Your task to perform on an android device: turn on data saver in the chrome app Image 0: 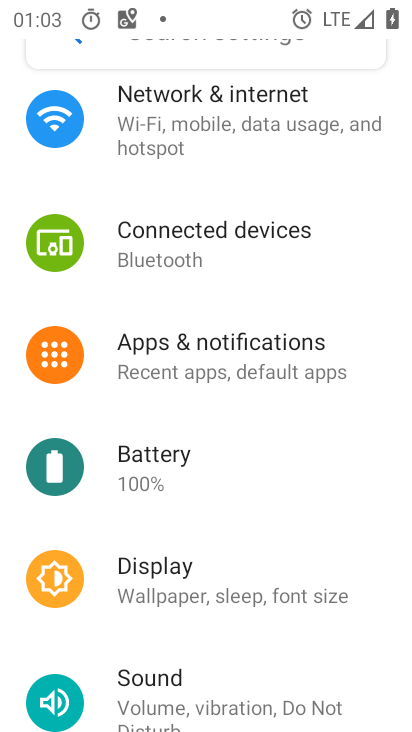
Step 0: press home button
Your task to perform on an android device: turn on data saver in the chrome app Image 1: 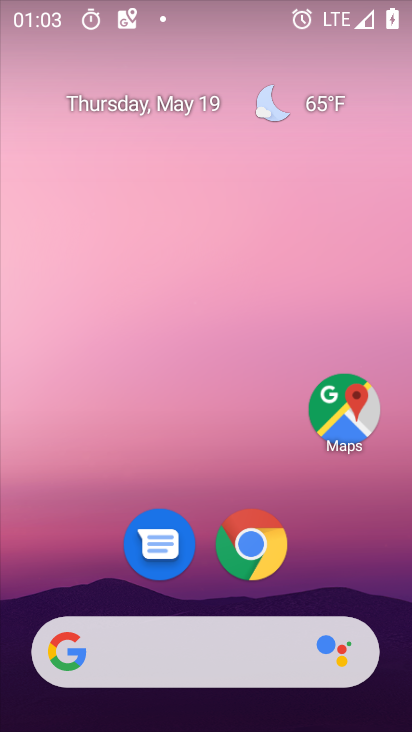
Step 1: drag from (378, 576) to (375, 156)
Your task to perform on an android device: turn on data saver in the chrome app Image 2: 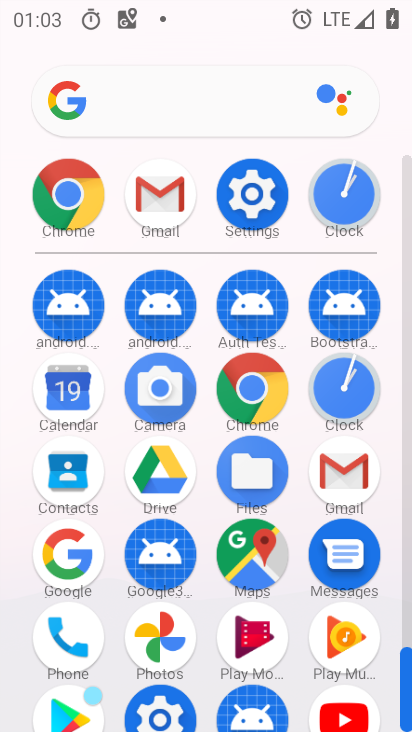
Step 2: click (263, 411)
Your task to perform on an android device: turn on data saver in the chrome app Image 3: 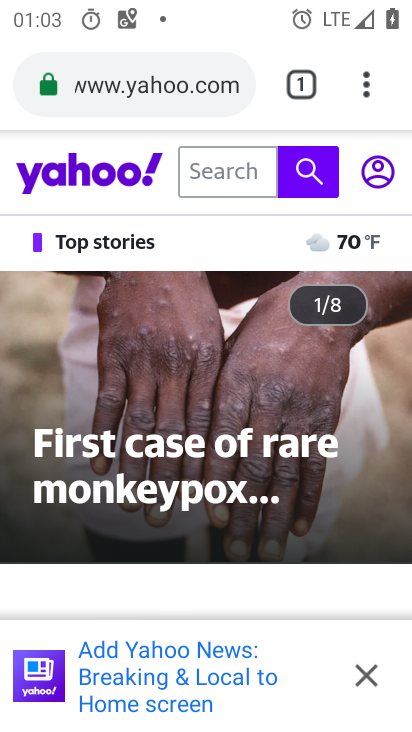
Step 3: click (364, 97)
Your task to perform on an android device: turn on data saver in the chrome app Image 4: 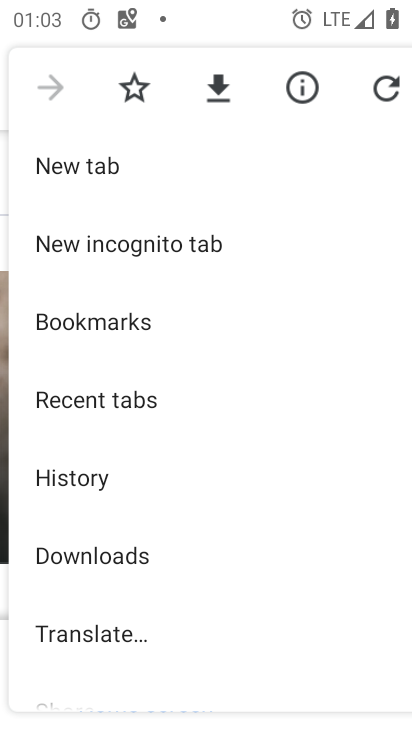
Step 4: drag from (308, 574) to (303, 355)
Your task to perform on an android device: turn on data saver in the chrome app Image 5: 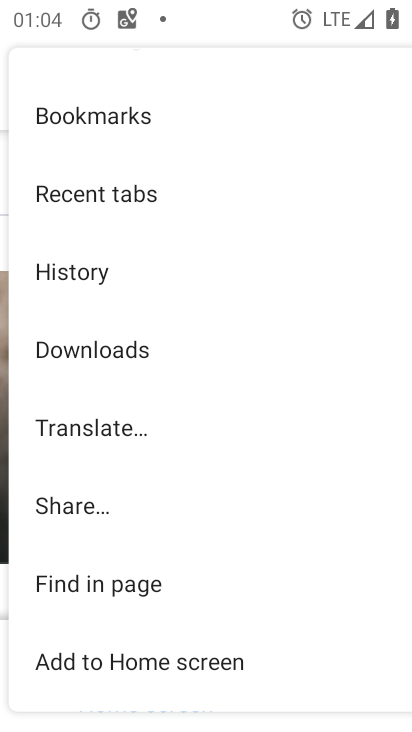
Step 5: drag from (311, 532) to (310, 340)
Your task to perform on an android device: turn on data saver in the chrome app Image 6: 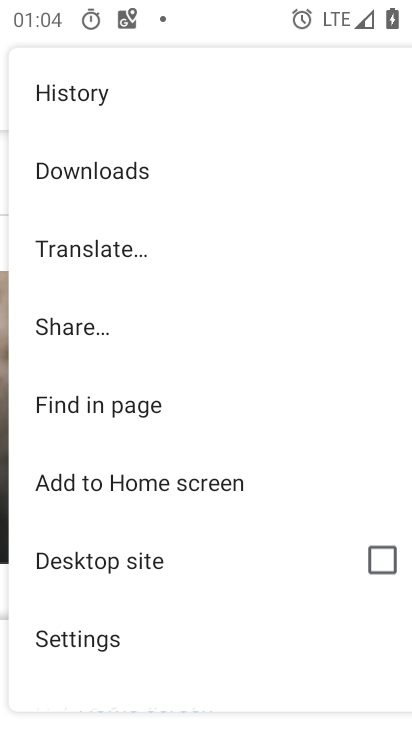
Step 6: drag from (280, 599) to (283, 421)
Your task to perform on an android device: turn on data saver in the chrome app Image 7: 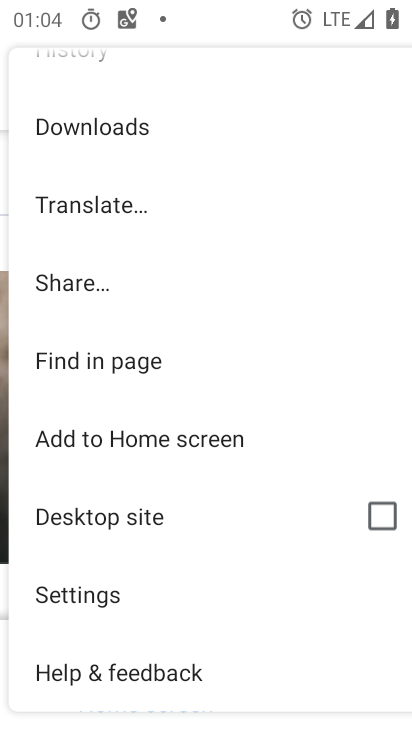
Step 7: drag from (305, 248) to (305, 464)
Your task to perform on an android device: turn on data saver in the chrome app Image 8: 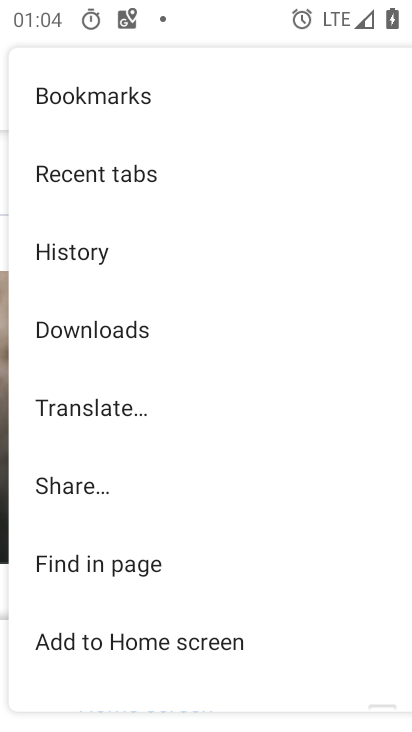
Step 8: drag from (300, 191) to (294, 388)
Your task to perform on an android device: turn on data saver in the chrome app Image 9: 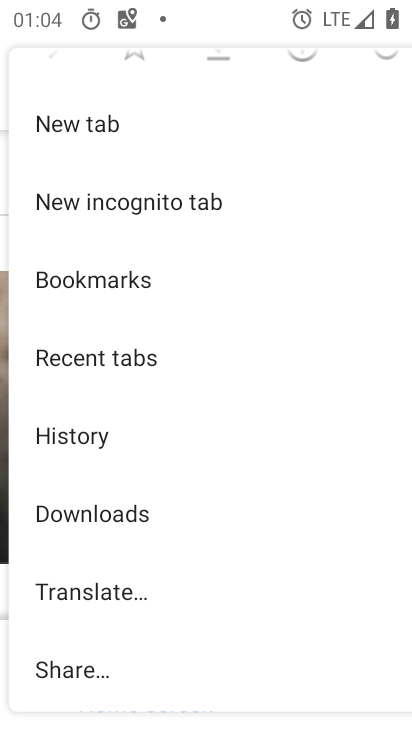
Step 9: drag from (285, 525) to (285, 224)
Your task to perform on an android device: turn on data saver in the chrome app Image 10: 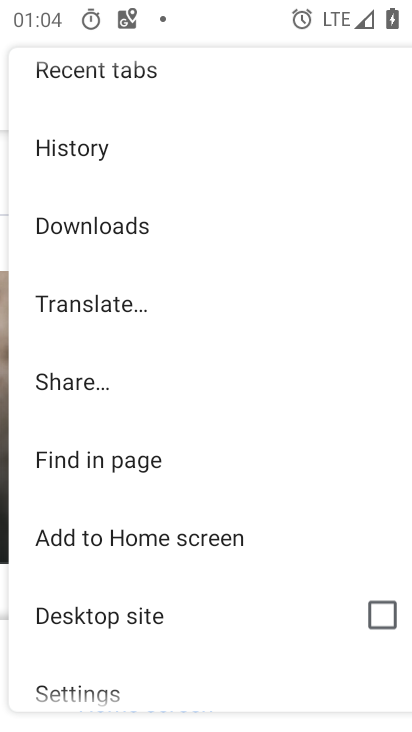
Step 10: drag from (287, 607) to (284, 361)
Your task to perform on an android device: turn on data saver in the chrome app Image 11: 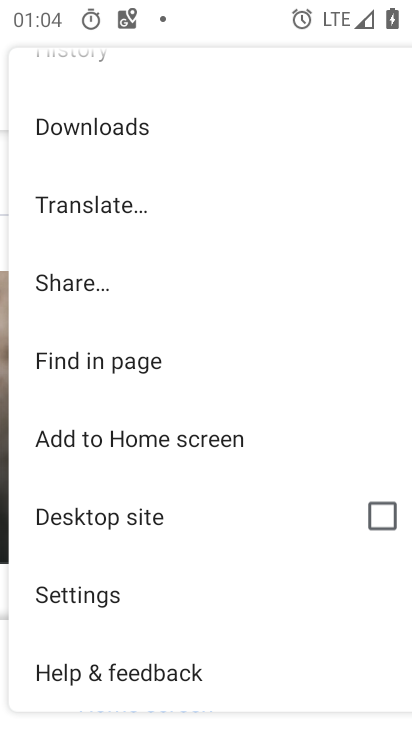
Step 11: click (110, 611)
Your task to perform on an android device: turn on data saver in the chrome app Image 12: 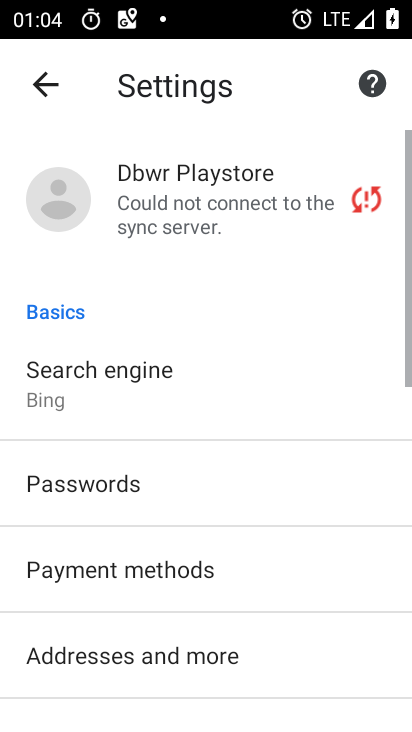
Step 12: drag from (271, 634) to (283, 496)
Your task to perform on an android device: turn on data saver in the chrome app Image 13: 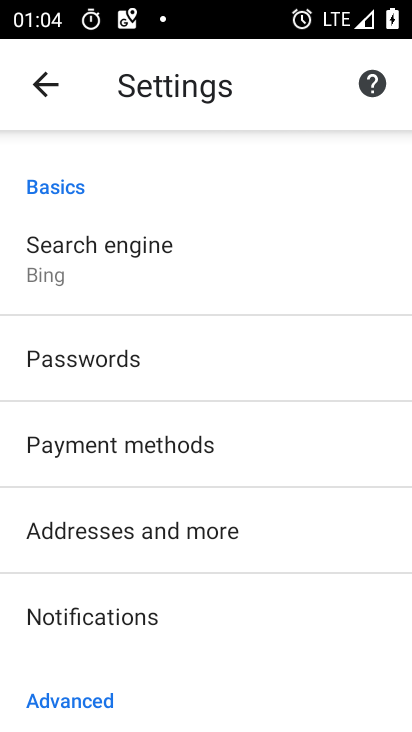
Step 13: drag from (291, 655) to (298, 520)
Your task to perform on an android device: turn on data saver in the chrome app Image 14: 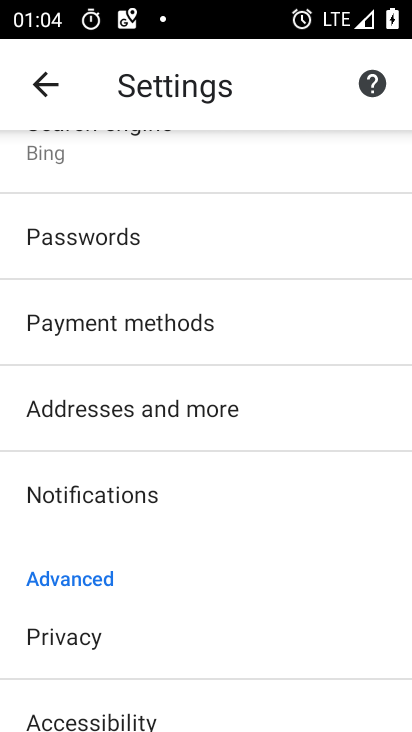
Step 14: drag from (305, 688) to (311, 540)
Your task to perform on an android device: turn on data saver in the chrome app Image 15: 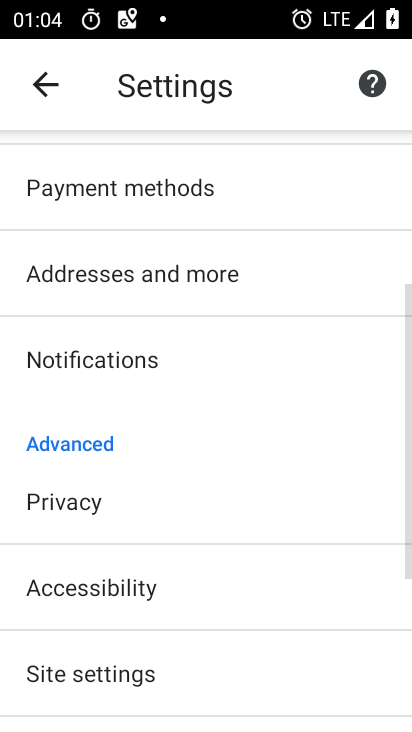
Step 15: drag from (284, 633) to (296, 533)
Your task to perform on an android device: turn on data saver in the chrome app Image 16: 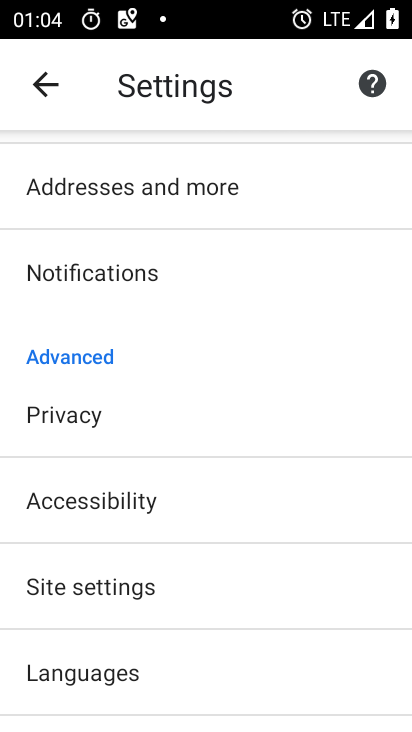
Step 16: drag from (289, 657) to (287, 453)
Your task to perform on an android device: turn on data saver in the chrome app Image 17: 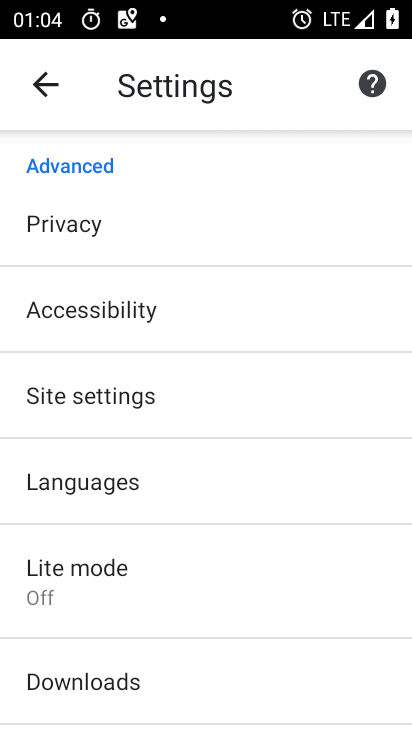
Step 17: drag from (290, 635) to (306, 478)
Your task to perform on an android device: turn on data saver in the chrome app Image 18: 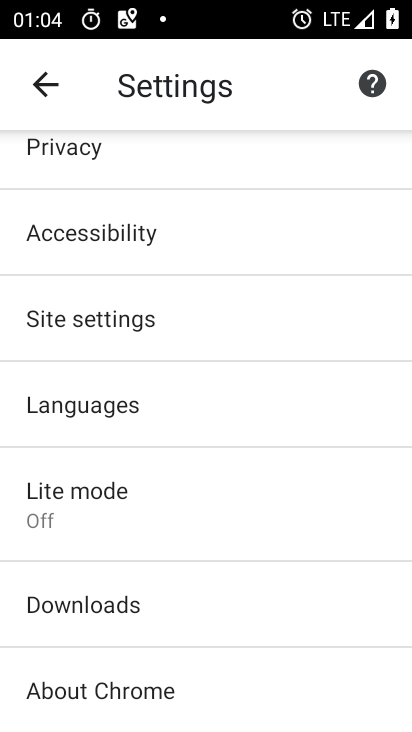
Step 18: drag from (281, 670) to (272, 493)
Your task to perform on an android device: turn on data saver in the chrome app Image 19: 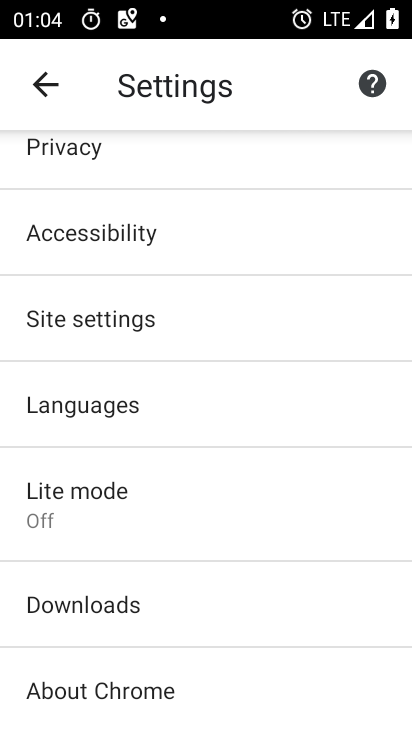
Step 19: click (186, 501)
Your task to perform on an android device: turn on data saver in the chrome app Image 20: 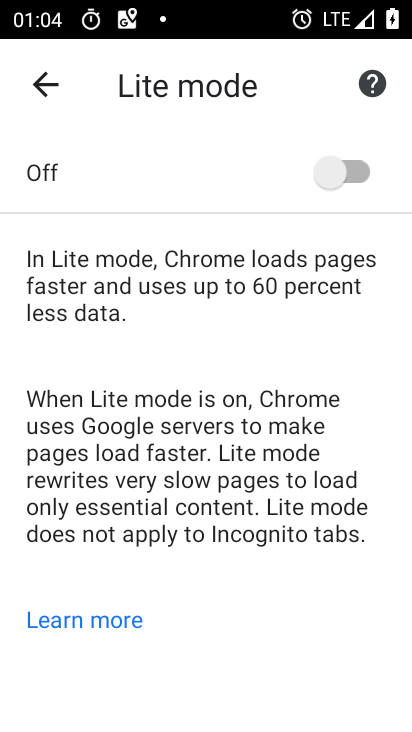
Step 20: click (354, 169)
Your task to perform on an android device: turn on data saver in the chrome app Image 21: 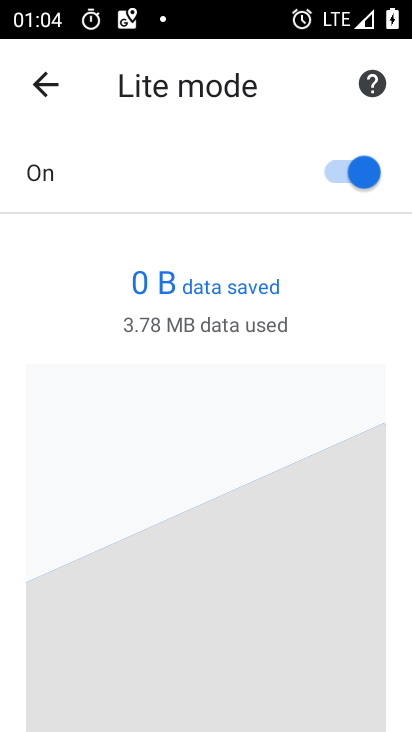
Step 21: task complete